Your task to perform on an android device: turn pop-ups on in chrome Image 0: 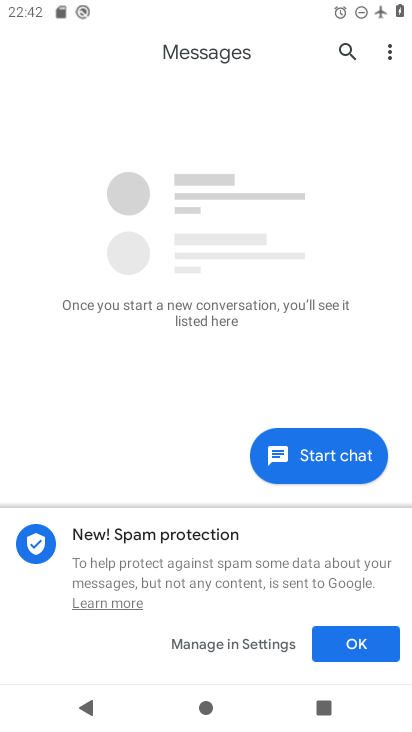
Step 0: press home button
Your task to perform on an android device: turn pop-ups on in chrome Image 1: 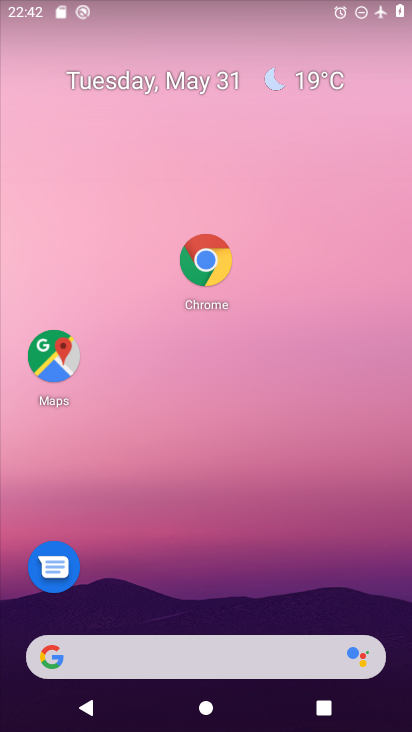
Step 1: click (204, 282)
Your task to perform on an android device: turn pop-ups on in chrome Image 2: 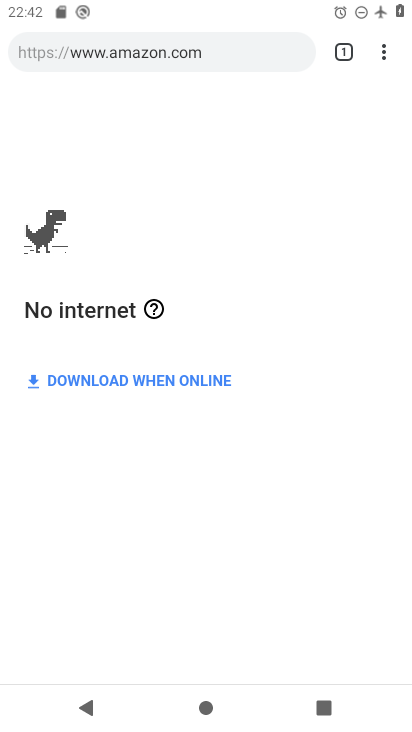
Step 2: click (387, 39)
Your task to perform on an android device: turn pop-ups on in chrome Image 3: 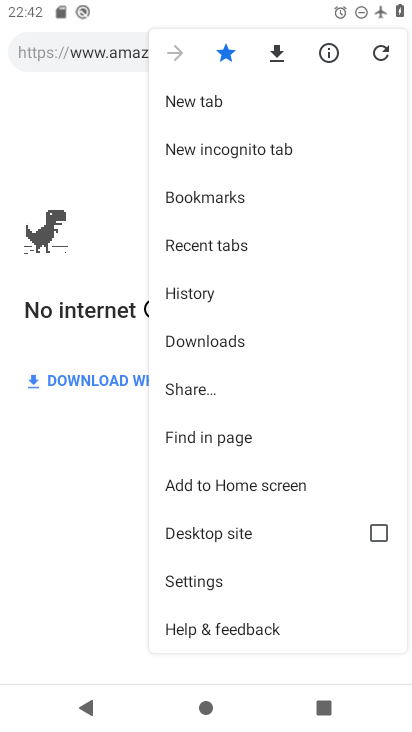
Step 3: click (216, 581)
Your task to perform on an android device: turn pop-ups on in chrome Image 4: 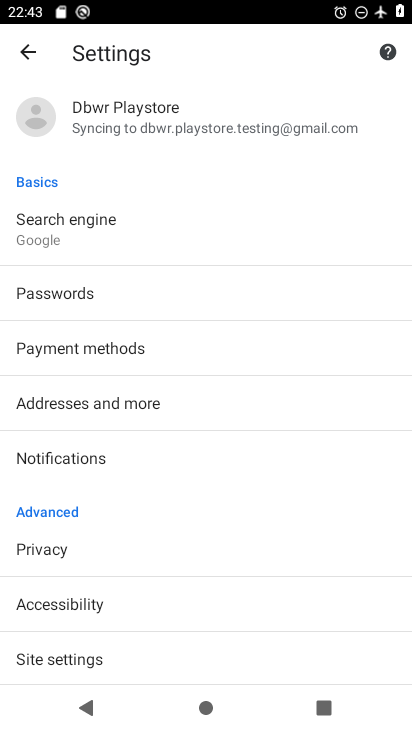
Step 4: drag from (43, 665) to (103, 431)
Your task to perform on an android device: turn pop-ups on in chrome Image 5: 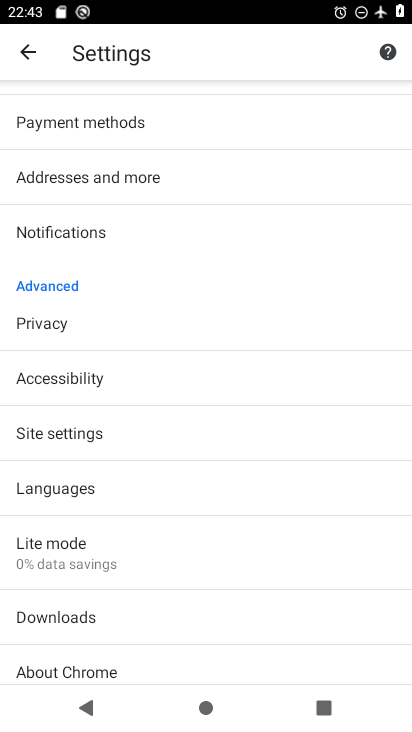
Step 5: click (58, 429)
Your task to perform on an android device: turn pop-ups on in chrome Image 6: 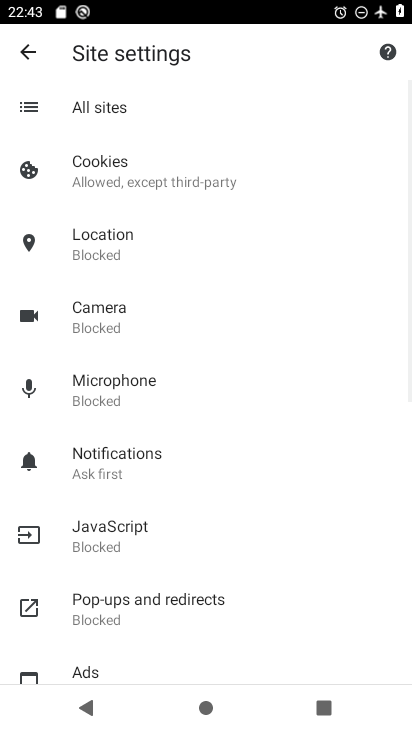
Step 6: click (100, 625)
Your task to perform on an android device: turn pop-ups on in chrome Image 7: 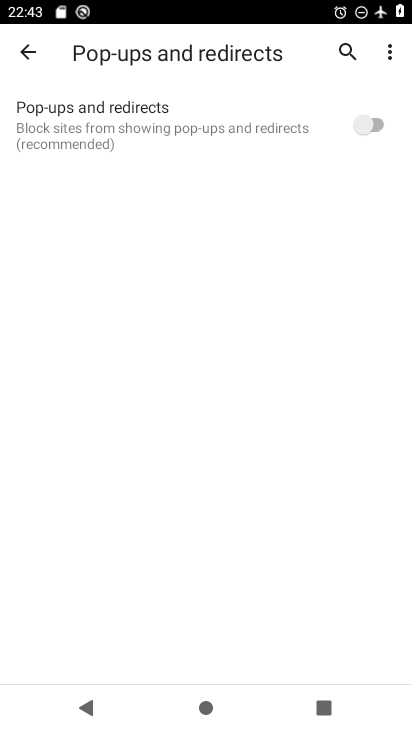
Step 7: click (391, 56)
Your task to perform on an android device: turn pop-ups on in chrome Image 8: 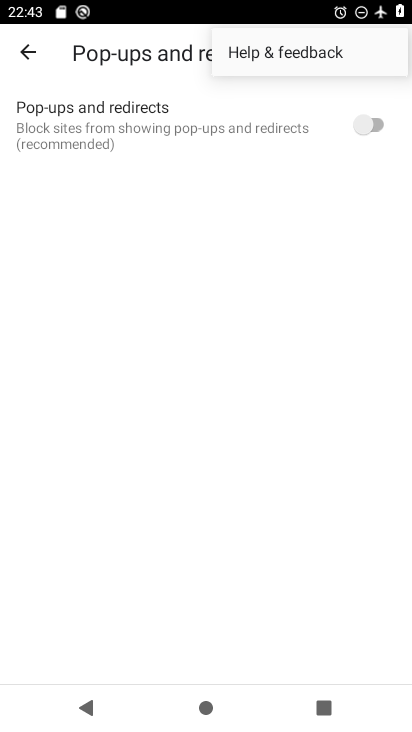
Step 8: click (380, 126)
Your task to perform on an android device: turn pop-ups on in chrome Image 9: 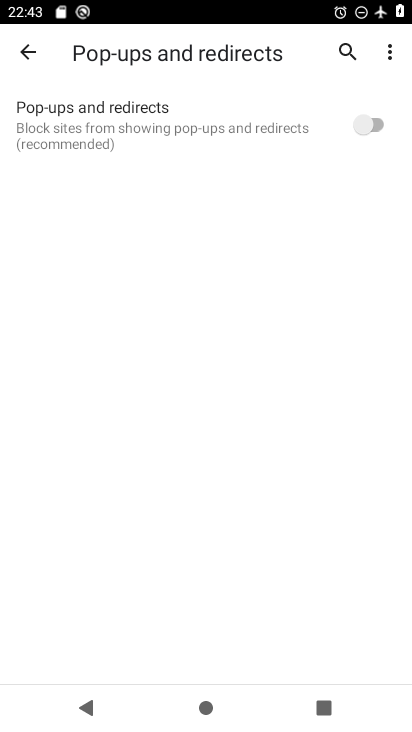
Step 9: click (365, 125)
Your task to perform on an android device: turn pop-ups on in chrome Image 10: 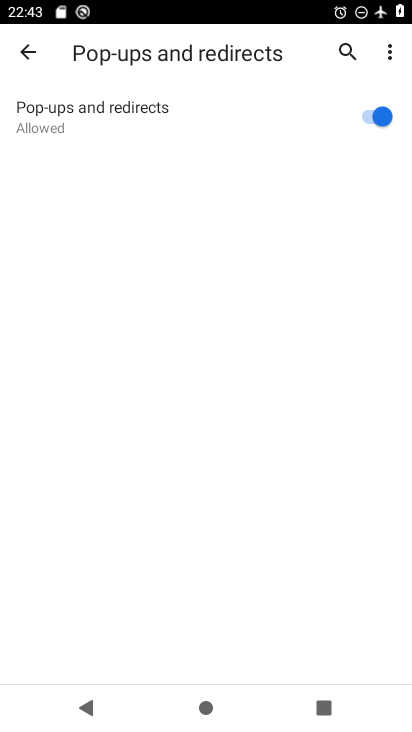
Step 10: task complete